Your task to perform on an android device: Open calendar and show me the third week of next month Image 0: 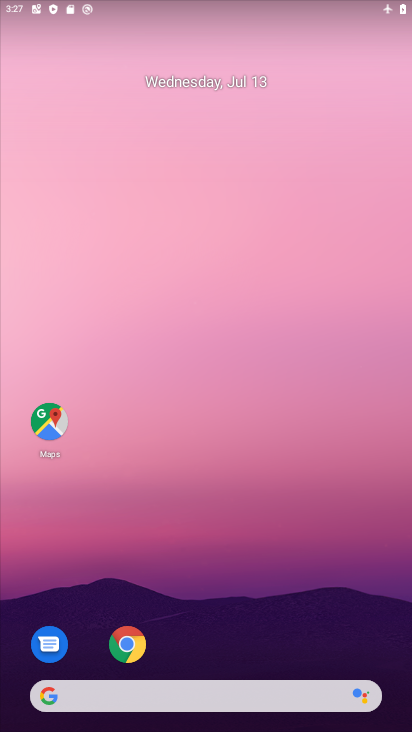
Step 0: drag from (272, 628) to (281, 129)
Your task to perform on an android device: Open calendar and show me the third week of next month Image 1: 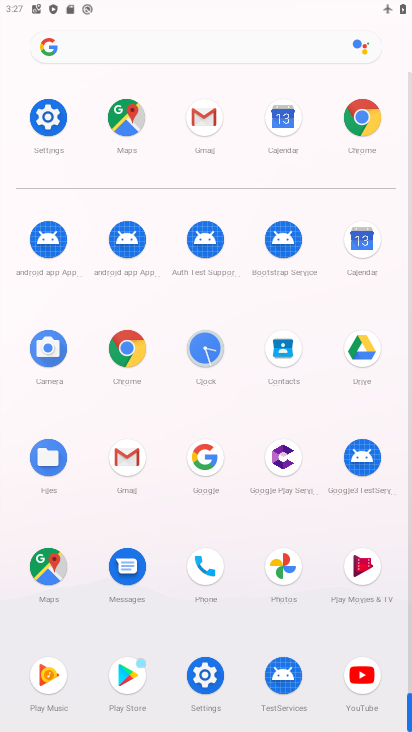
Step 1: click (361, 242)
Your task to perform on an android device: Open calendar and show me the third week of next month Image 2: 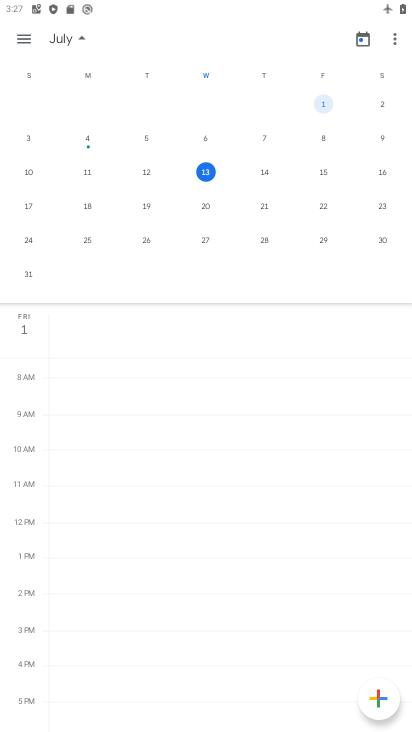
Step 2: drag from (387, 212) to (32, 176)
Your task to perform on an android device: Open calendar and show me the third week of next month Image 3: 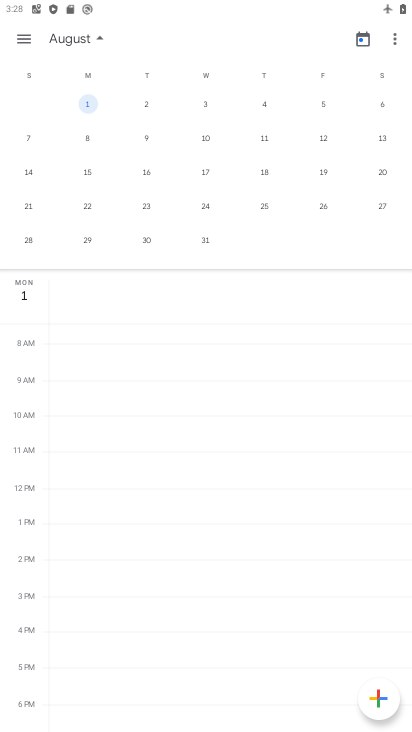
Step 3: click (270, 172)
Your task to perform on an android device: Open calendar and show me the third week of next month Image 4: 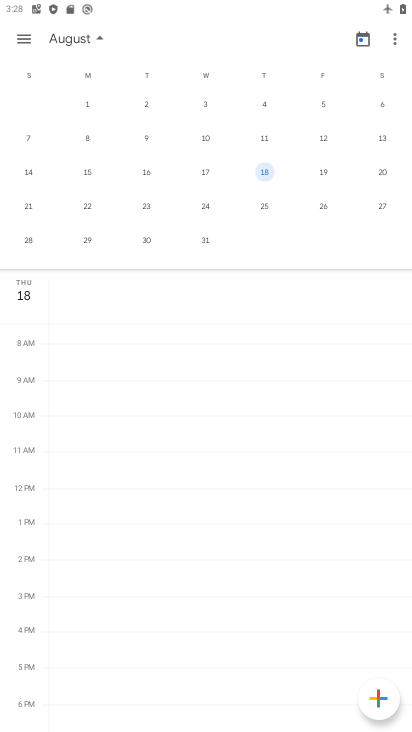
Step 4: click (26, 48)
Your task to perform on an android device: Open calendar and show me the third week of next month Image 5: 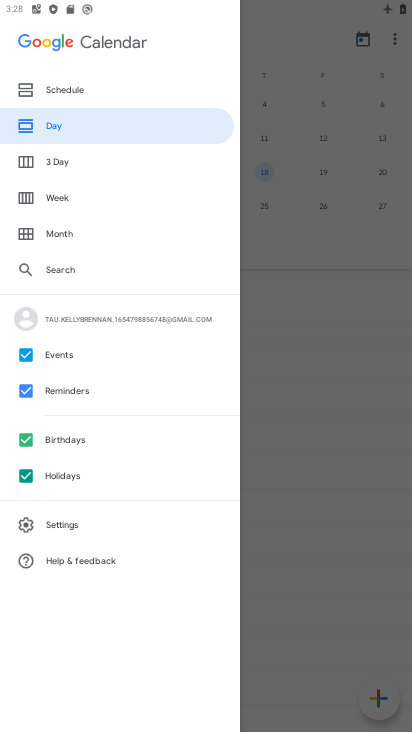
Step 5: click (60, 198)
Your task to perform on an android device: Open calendar and show me the third week of next month Image 6: 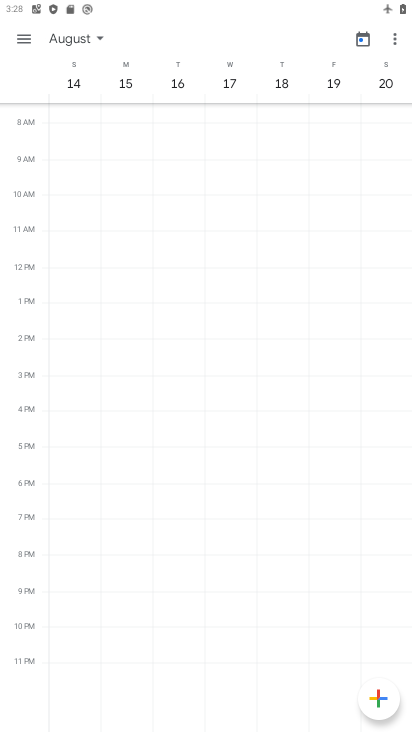
Step 6: task complete